Your task to perform on an android device: Is it going to rain this weekend? Image 0: 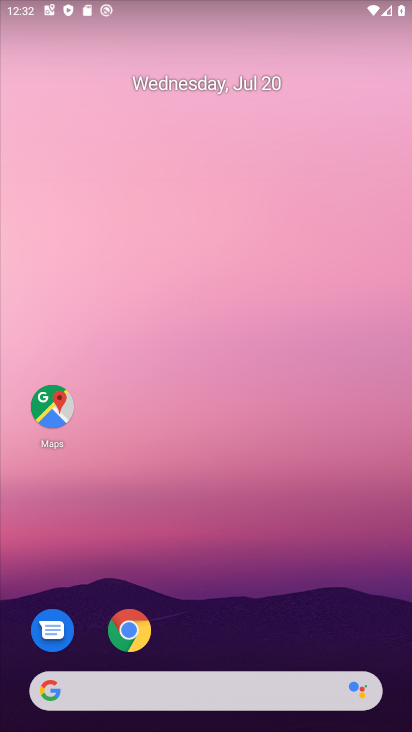
Step 0: press home button
Your task to perform on an android device: Is it going to rain this weekend? Image 1: 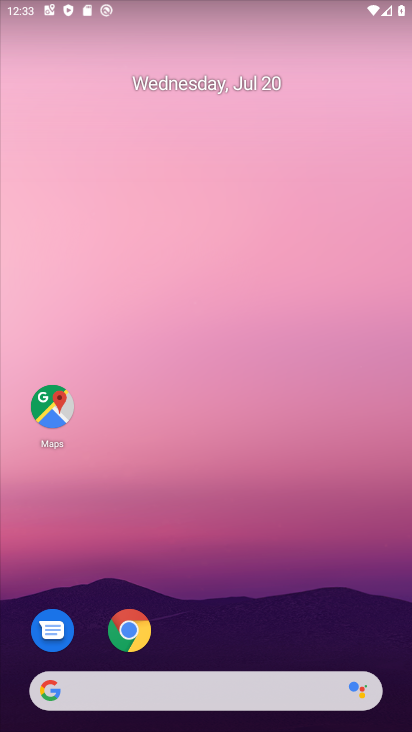
Step 1: click (50, 693)
Your task to perform on an android device: Is it going to rain this weekend? Image 2: 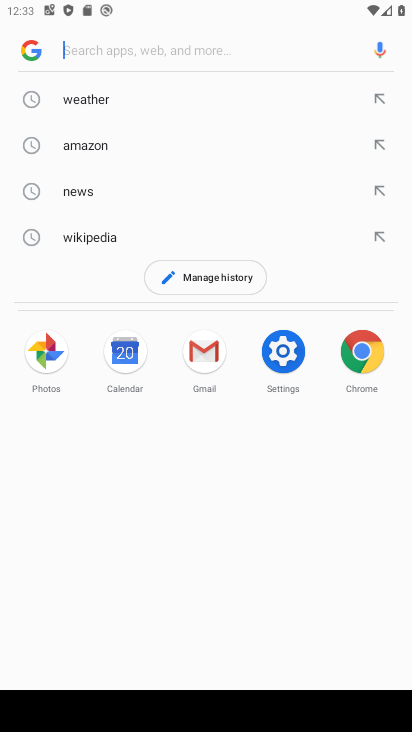
Step 2: type "Is it going to rain this weekend"
Your task to perform on an android device: Is it going to rain this weekend? Image 3: 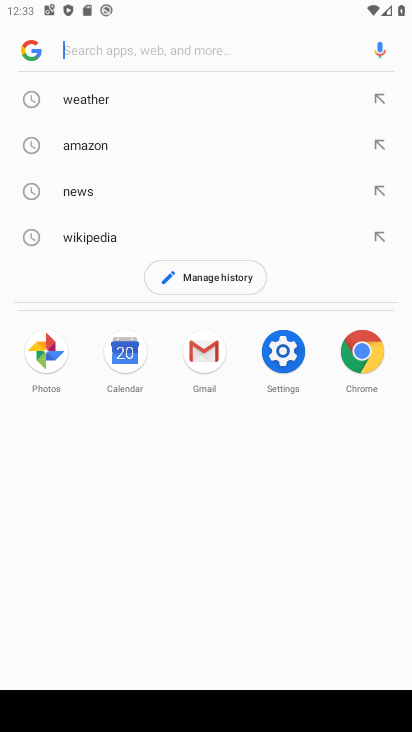
Step 3: click (85, 44)
Your task to perform on an android device: Is it going to rain this weekend? Image 4: 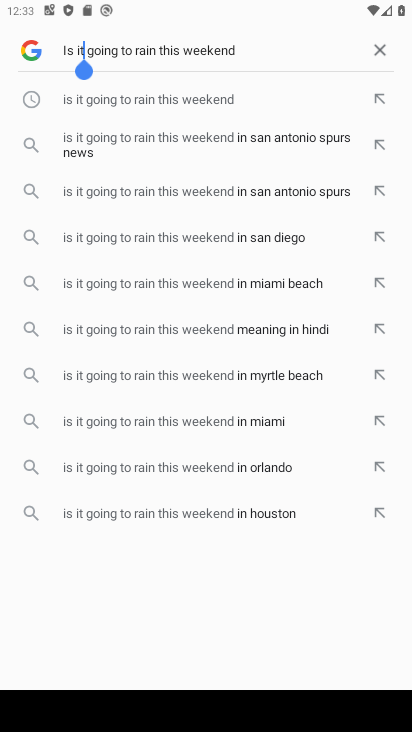
Step 4: press enter
Your task to perform on an android device: Is it going to rain this weekend? Image 5: 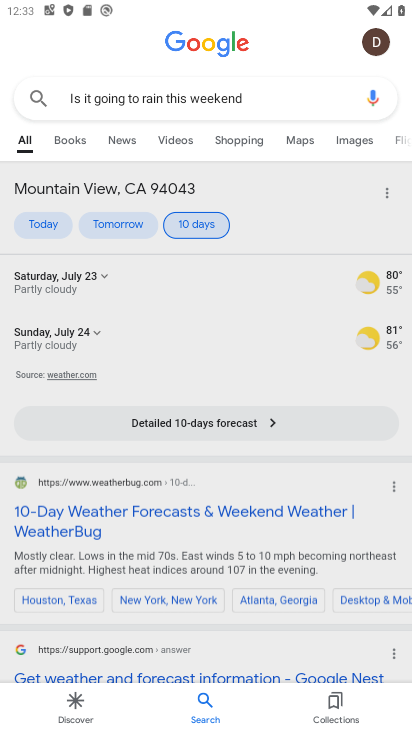
Step 5: task complete